Your task to perform on an android device: Show me the alarms in the clock app Image 0: 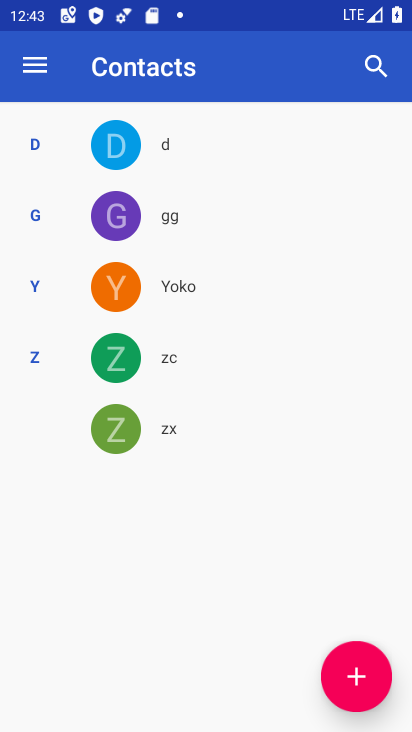
Step 0: press home button
Your task to perform on an android device: Show me the alarms in the clock app Image 1: 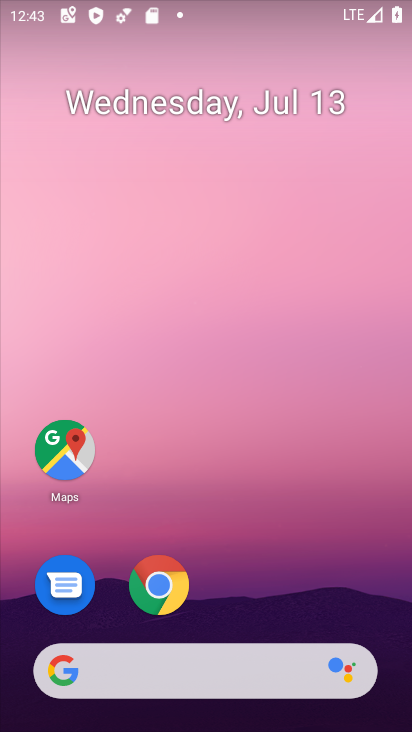
Step 1: click (199, 623)
Your task to perform on an android device: Show me the alarms in the clock app Image 2: 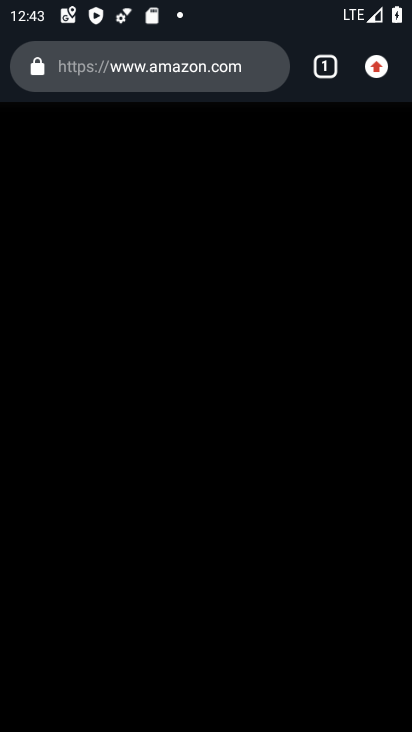
Step 2: press back button
Your task to perform on an android device: Show me the alarms in the clock app Image 3: 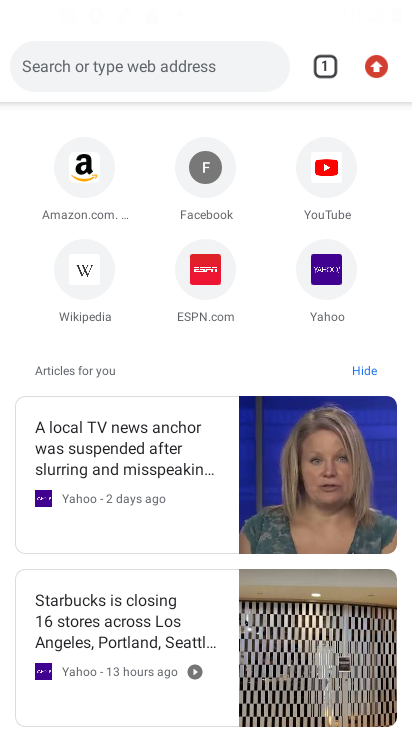
Step 3: press back button
Your task to perform on an android device: Show me the alarms in the clock app Image 4: 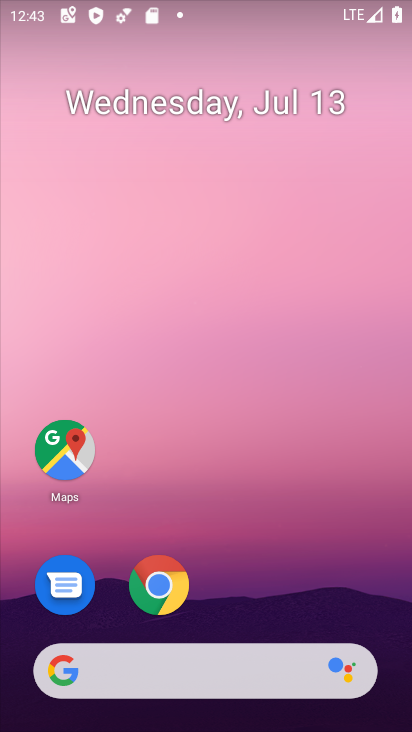
Step 4: drag from (209, 548) to (166, 78)
Your task to perform on an android device: Show me the alarms in the clock app Image 5: 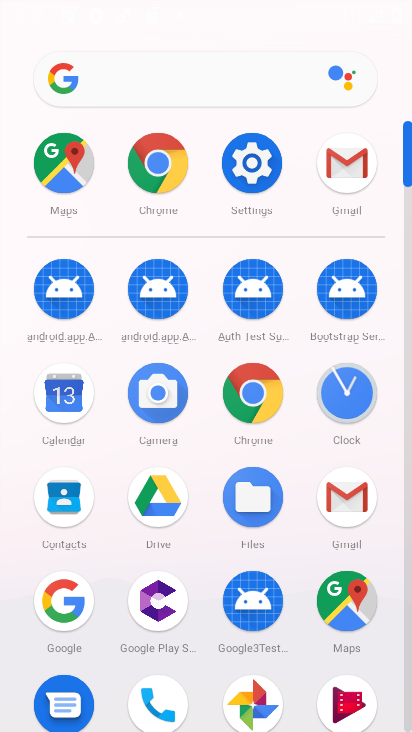
Step 5: click (357, 404)
Your task to perform on an android device: Show me the alarms in the clock app Image 6: 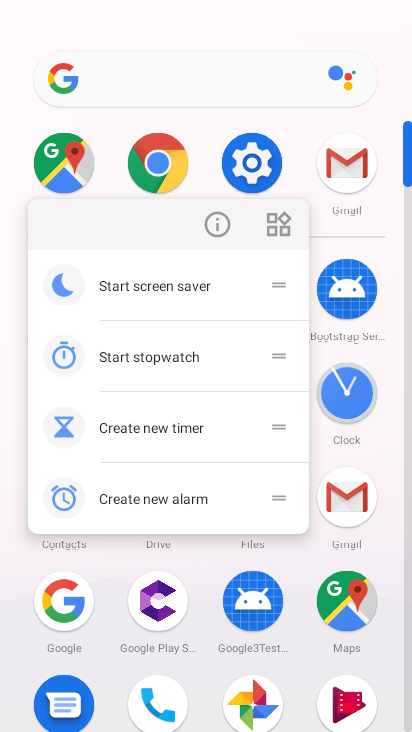
Step 6: click (340, 404)
Your task to perform on an android device: Show me the alarms in the clock app Image 7: 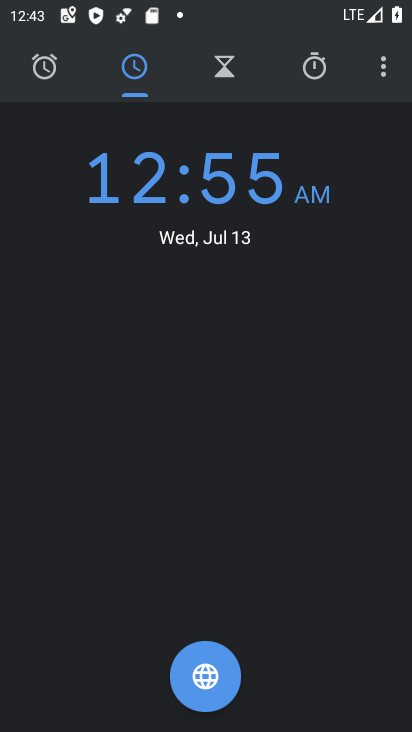
Step 7: click (385, 75)
Your task to perform on an android device: Show me the alarms in the clock app Image 8: 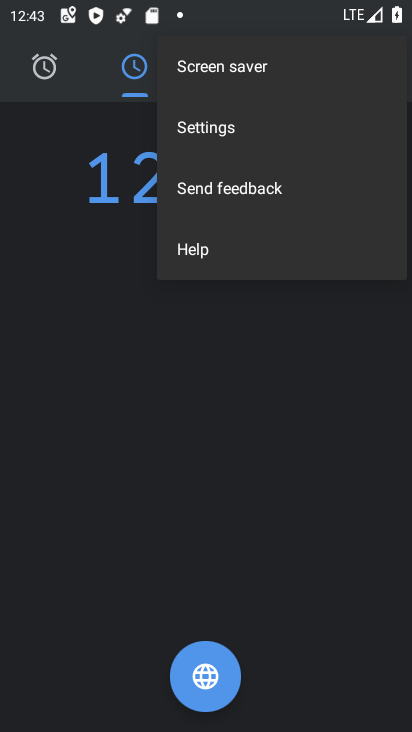
Step 8: click (34, 66)
Your task to perform on an android device: Show me the alarms in the clock app Image 9: 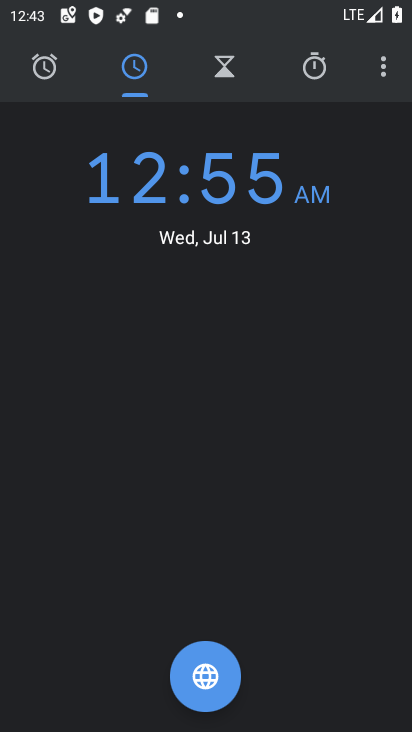
Step 9: click (34, 66)
Your task to perform on an android device: Show me the alarms in the clock app Image 10: 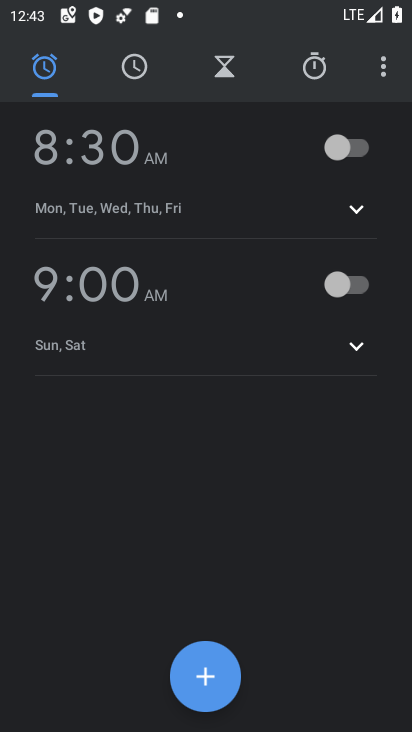
Step 10: task complete